Your task to perform on an android device: Open the phone app and click the voicemail tab. Image 0: 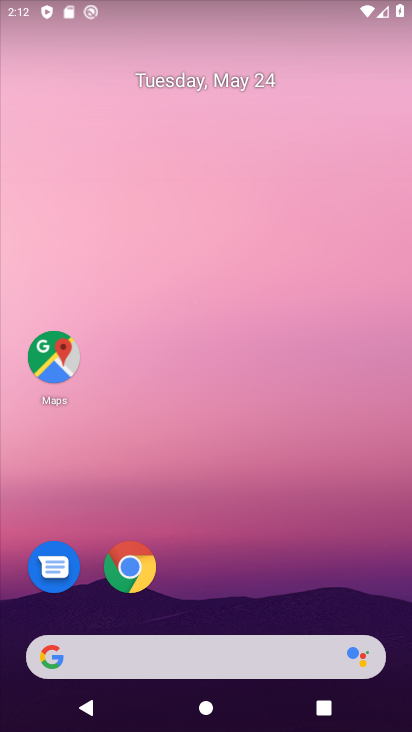
Step 0: drag from (211, 502) to (260, 2)
Your task to perform on an android device: Open the phone app and click the voicemail tab. Image 1: 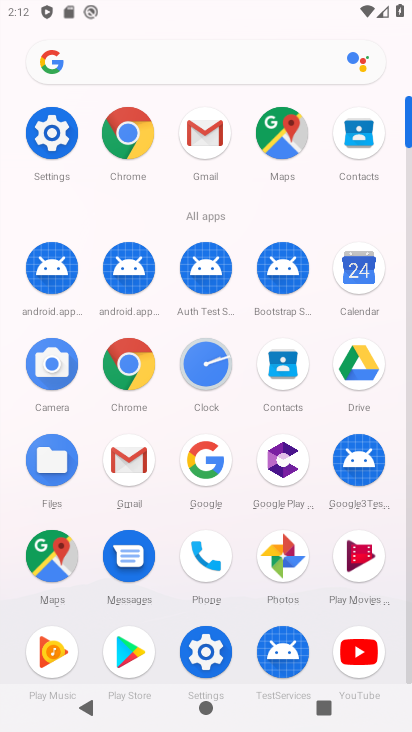
Step 1: click (212, 564)
Your task to perform on an android device: Open the phone app and click the voicemail tab. Image 2: 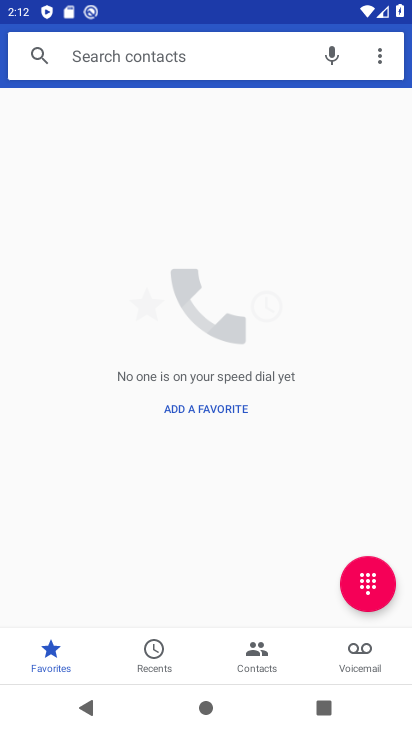
Step 2: click (362, 666)
Your task to perform on an android device: Open the phone app and click the voicemail tab. Image 3: 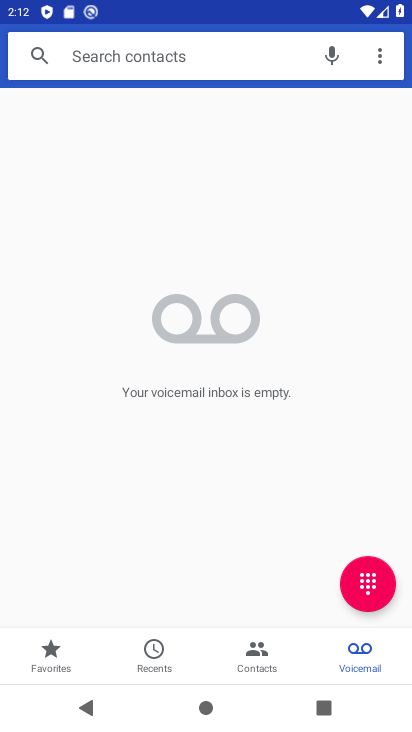
Step 3: task complete